Your task to perform on an android device: see tabs open on other devices in the chrome app Image 0: 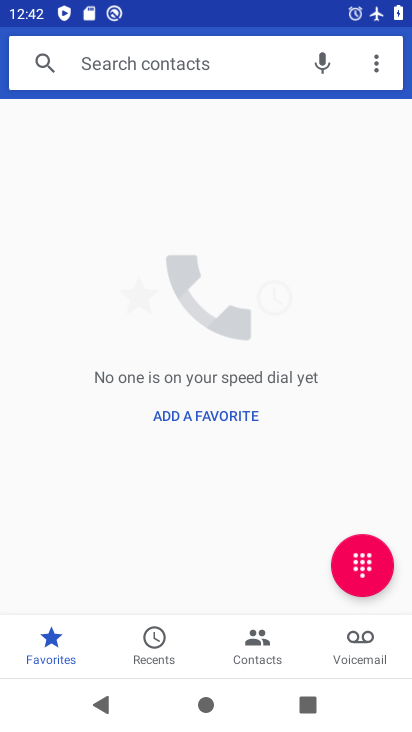
Step 0: press home button
Your task to perform on an android device: see tabs open on other devices in the chrome app Image 1: 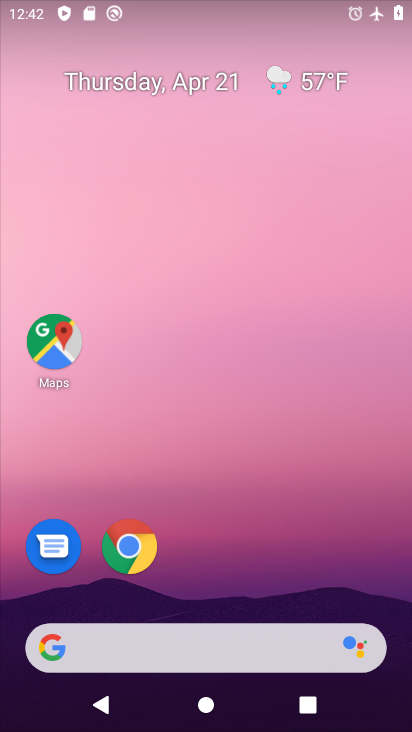
Step 1: click (127, 545)
Your task to perform on an android device: see tabs open on other devices in the chrome app Image 2: 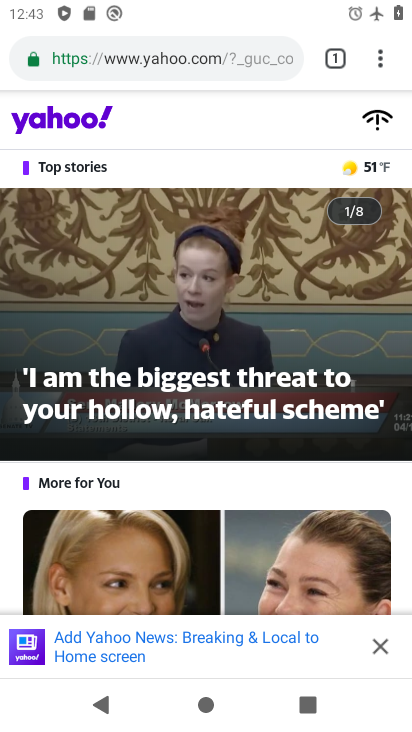
Step 2: click (380, 64)
Your task to perform on an android device: see tabs open on other devices in the chrome app Image 3: 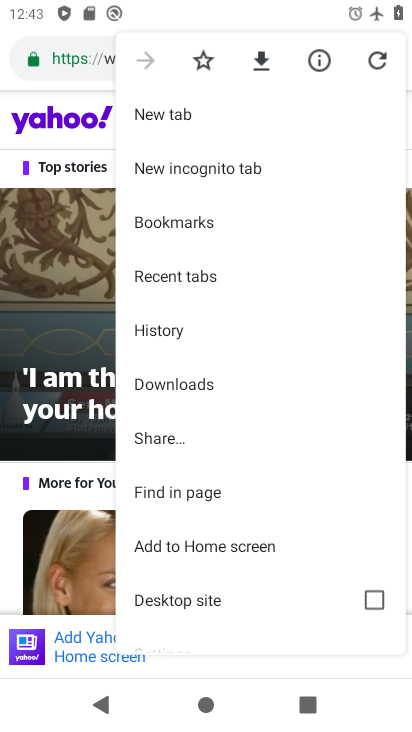
Step 3: drag from (248, 580) to (234, 296)
Your task to perform on an android device: see tabs open on other devices in the chrome app Image 4: 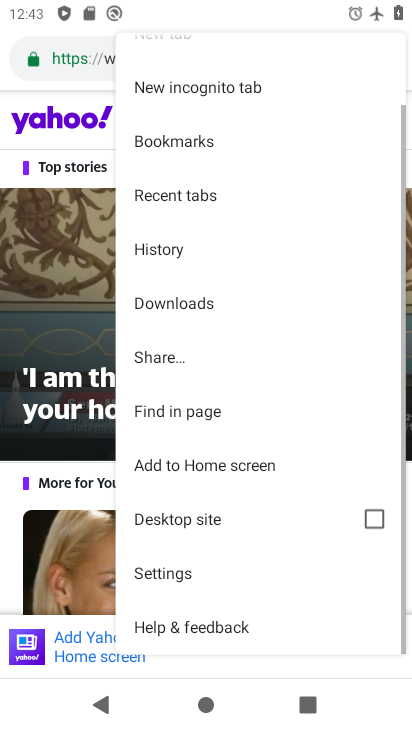
Step 4: click (216, 189)
Your task to perform on an android device: see tabs open on other devices in the chrome app Image 5: 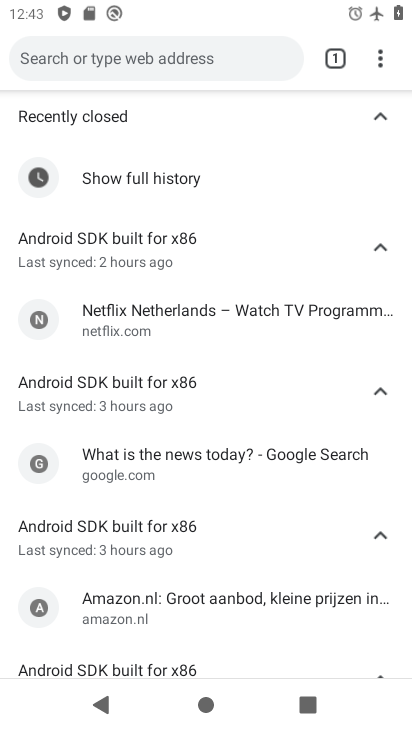
Step 5: task complete